Your task to perform on an android device: Open internet settings Image 0: 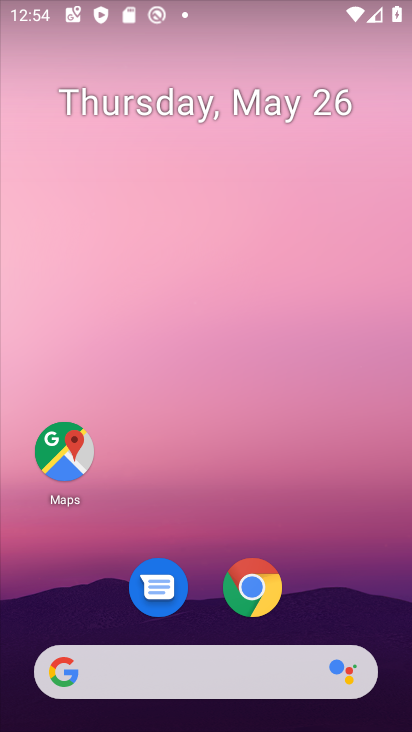
Step 0: drag from (390, 600) to (364, 130)
Your task to perform on an android device: Open internet settings Image 1: 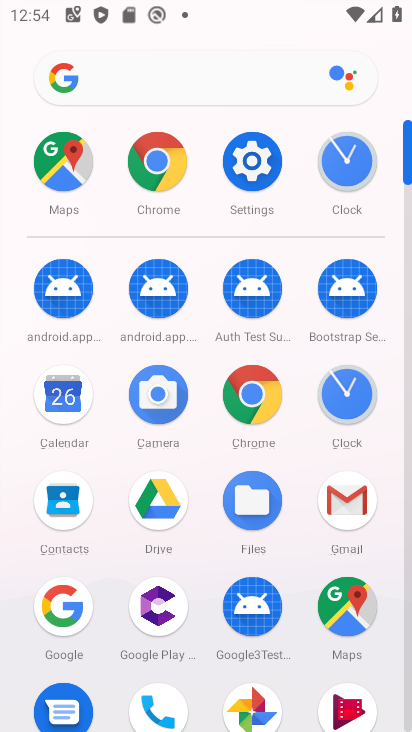
Step 1: click (253, 195)
Your task to perform on an android device: Open internet settings Image 2: 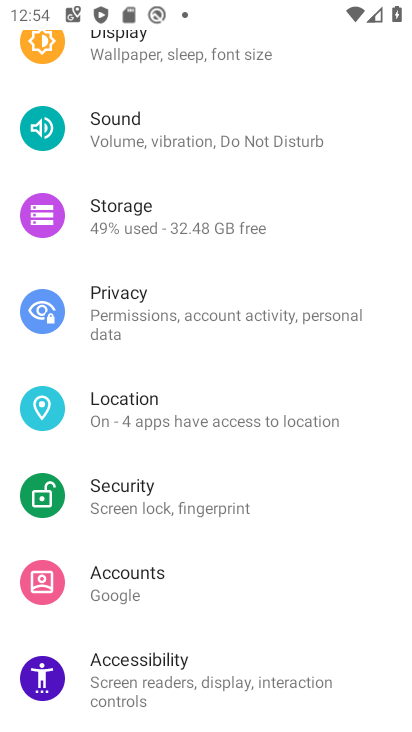
Step 2: drag from (335, 537) to (340, 458)
Your task to perform on an android device: Open internet settings Image 3: 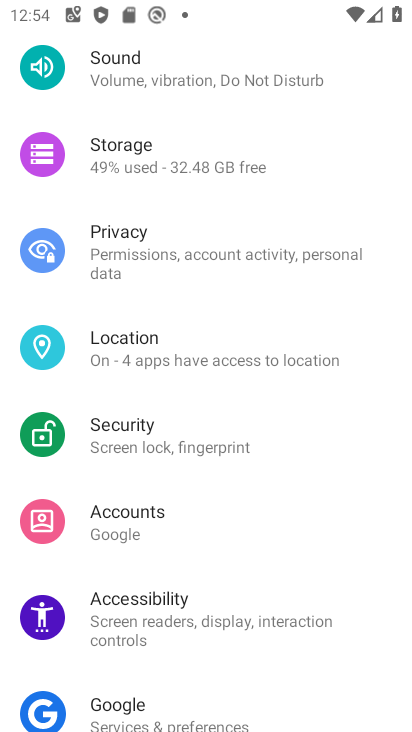
Step 3: drag from (339, 566) to (331, 433)
Your task to perform on an android device: Open internet settings Image 4: 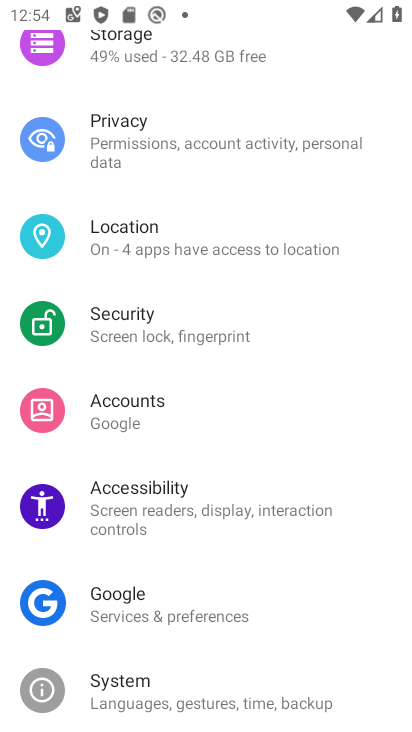
Step 4: drag from (337, 591) to (337, 455)
Your task to perform on an android device: Open internet settings Image 5: 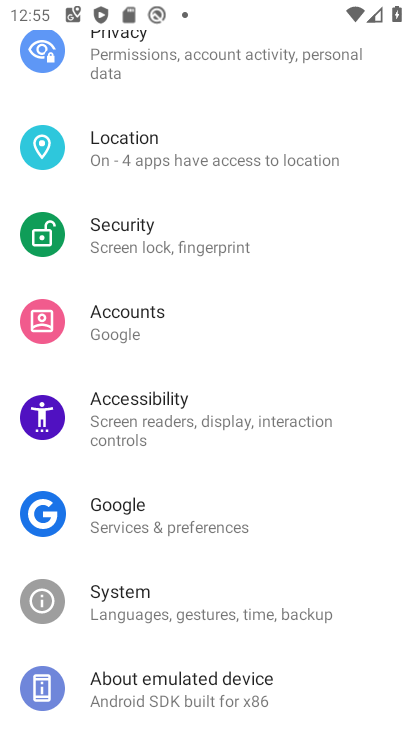
Step 5: drag from (336, 651) to (328, 514)
Your task to perform on an android device: Open internet settings Image 6: 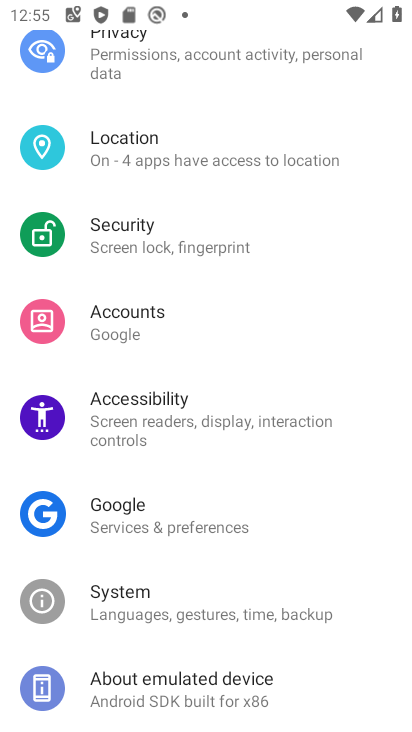
Step 6: drag from (302, 641) to (311, 526)
Your task to perform on an android device: Open internet settings Image 7: 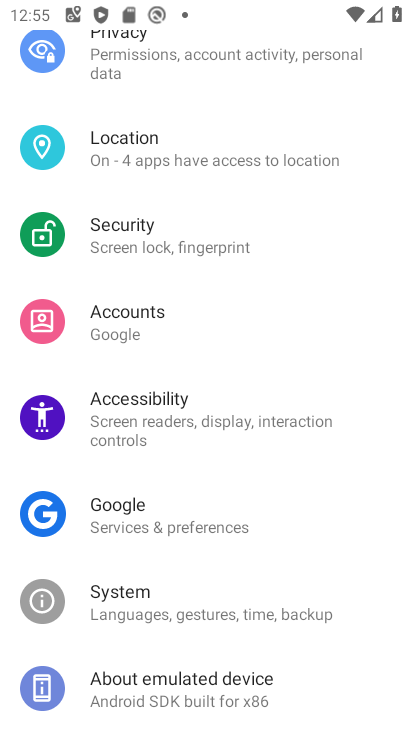
Step 7: drag from (331, 663) to (361, 458)
Your task to perform on an android device: Open internet settings Image 8: 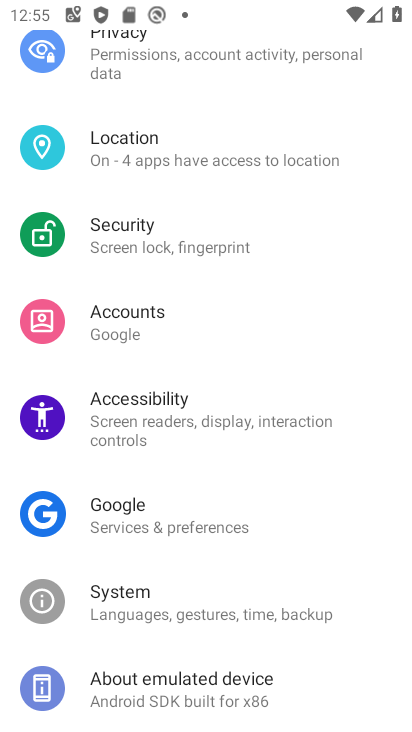
Step 8: drag from (367, 339) to (363, 467)
Your task to perform on an android device: Open internet settings Image 9: 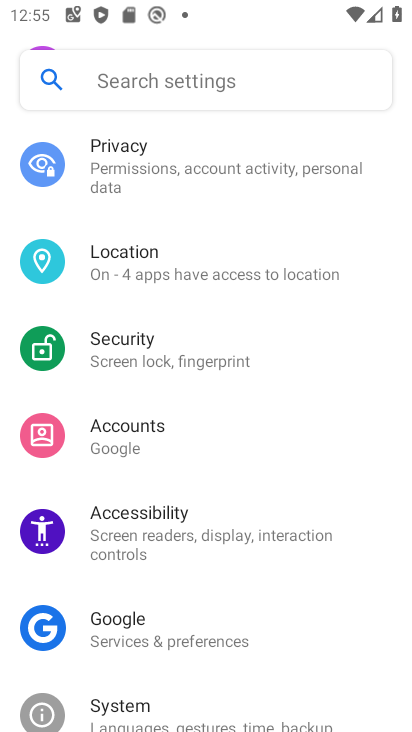
Step 9: drag from (362, 336) to (357, 459)
Your task to perform on an android device: Open internet settings Image 10: 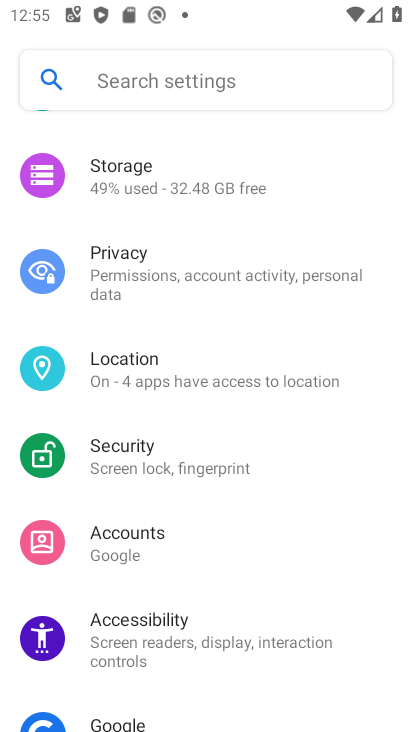
Step 10: drag from (362, 310) to (365, 431)
Your task to perform on an android device: Open internet settings Image 11: 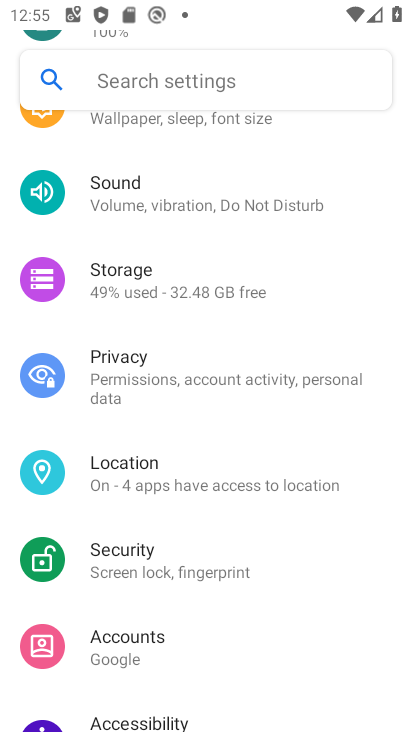
Step 11: drag from (365, 257) to (365, 379)
Your task to perform on an android device: Open internet settings Image 12: 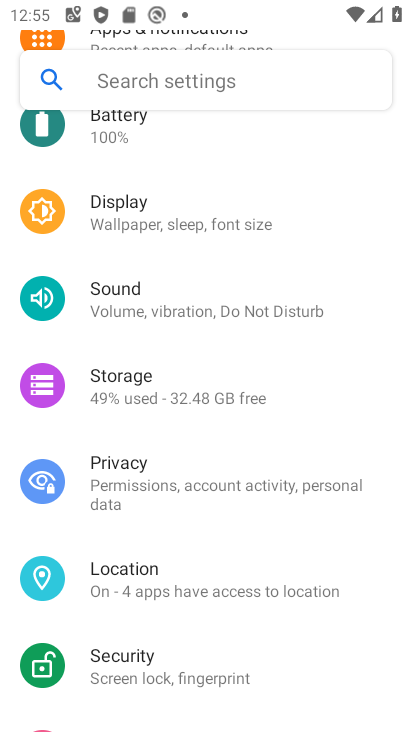
Step 12: drag from (365, 258) to (361, 367)
Your task to perform on an android device: Open internet settings Image 13: 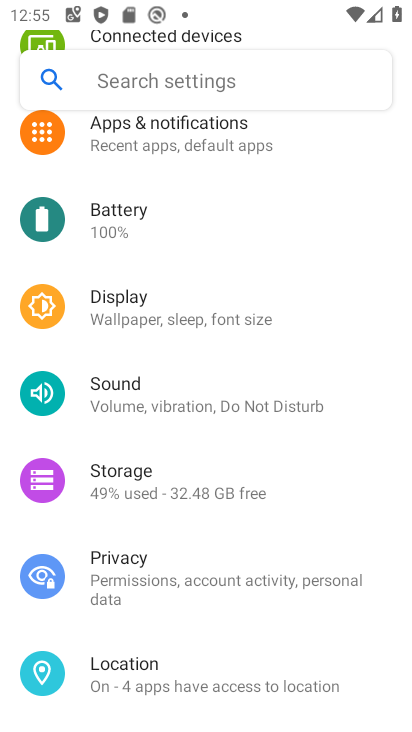
Step 13: drag from (359, 247) to (359, 353)
Your task to perform on an android device: Open internet settings Image 14: 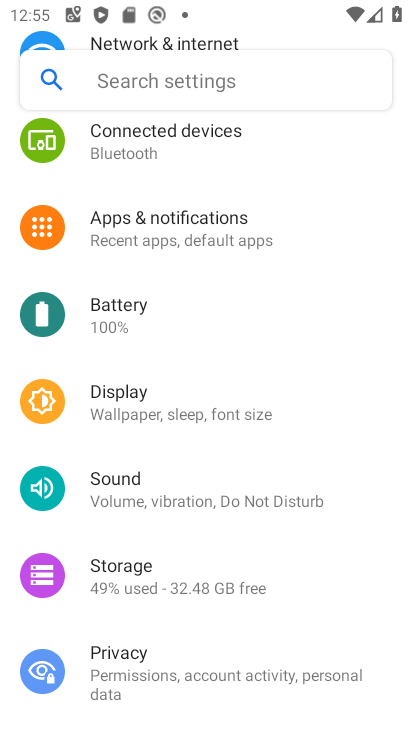
Step 14: drag from (352, 240) to (352, 345)
Your task to perform on an android device: Open internet settings Image 15: 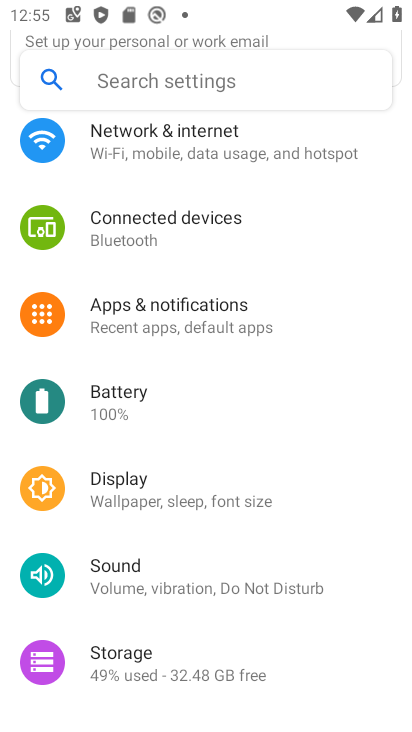
Step 15: drag from (351, 228) to (350, 334)
Your task to perform on an android device: Open internet settings Image 16: 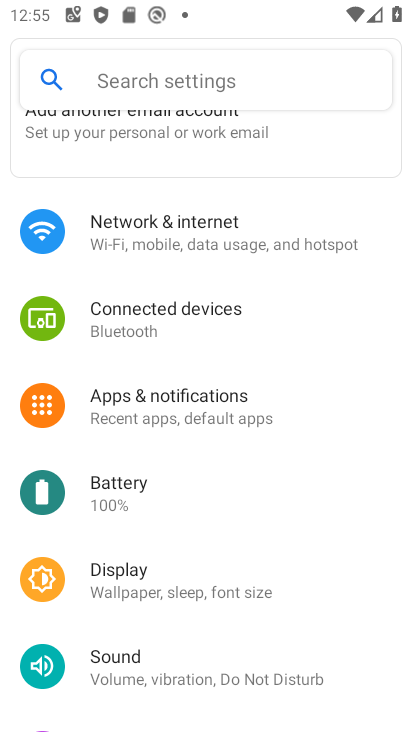
Step 16: drag from (343, 193) to (343, 303)
Your task to perform on an android device: Open internet settings Image 17: 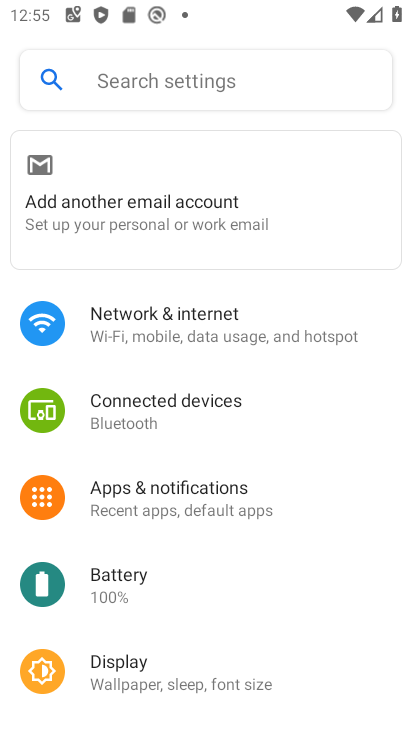
Step 17: drag from (338, 242) to (336, 370)
Your task to perform on an android device: Open internet settings Image 18: 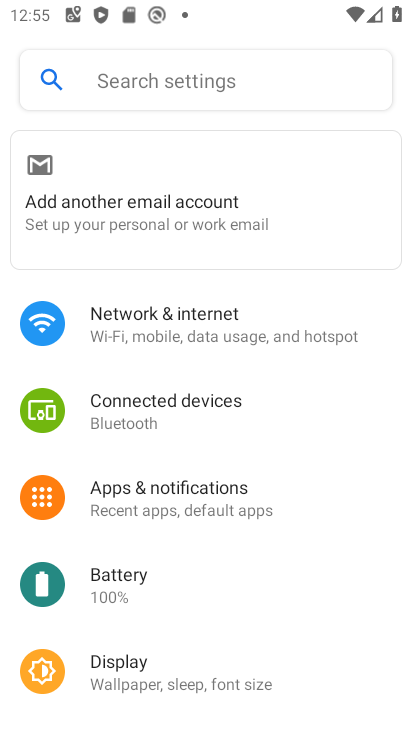
Step 18: click (278, 333)
Your task to perform on an android device: Open internet settings Image 19: 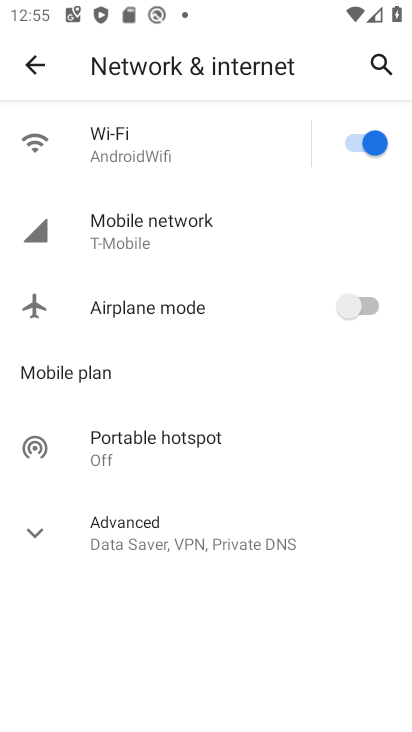
Step 19: task complete